Your task to perform on an android device: change the clock display to show seconds Image 0: 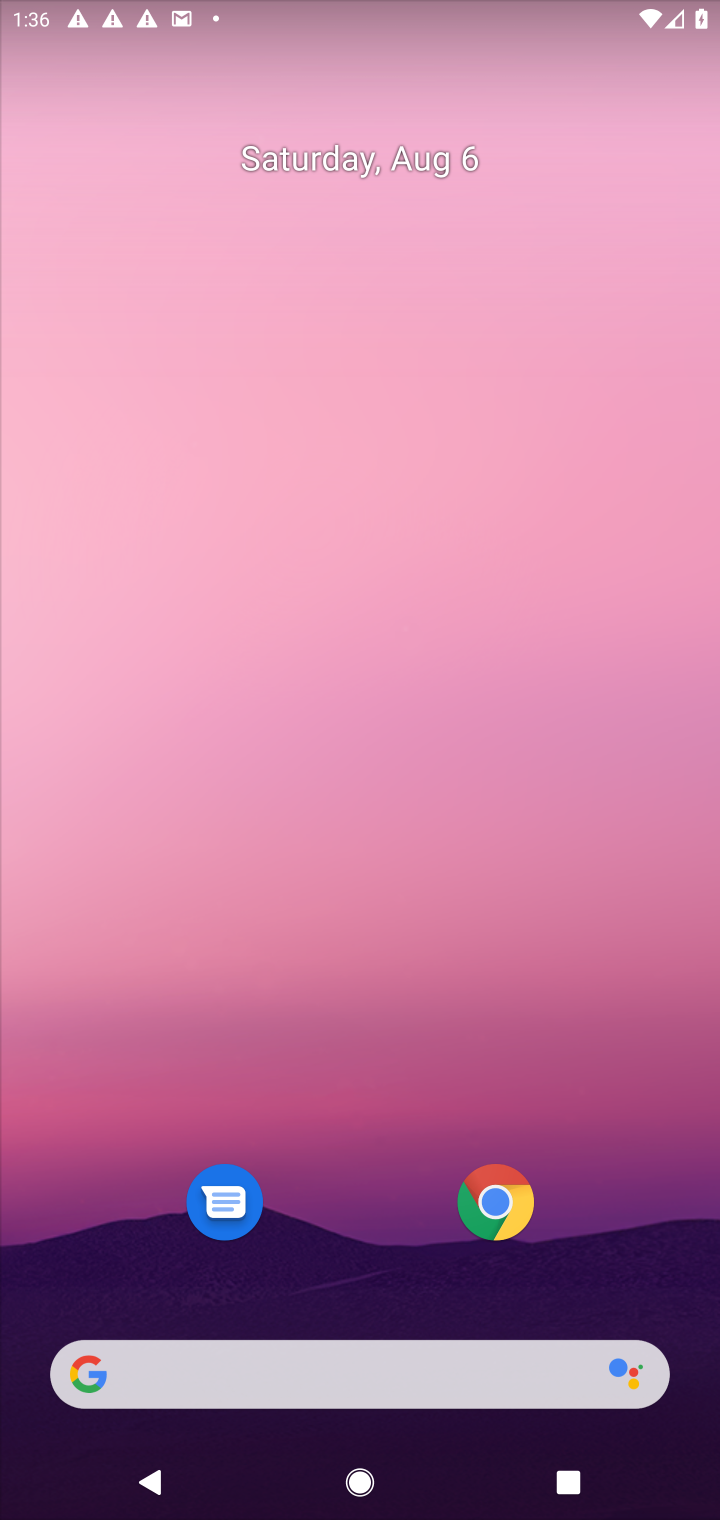
Step 0: drag from (334, 915) to (341, 4)
Your task to perform on an android device: change the clock display to show seconds Image 1: 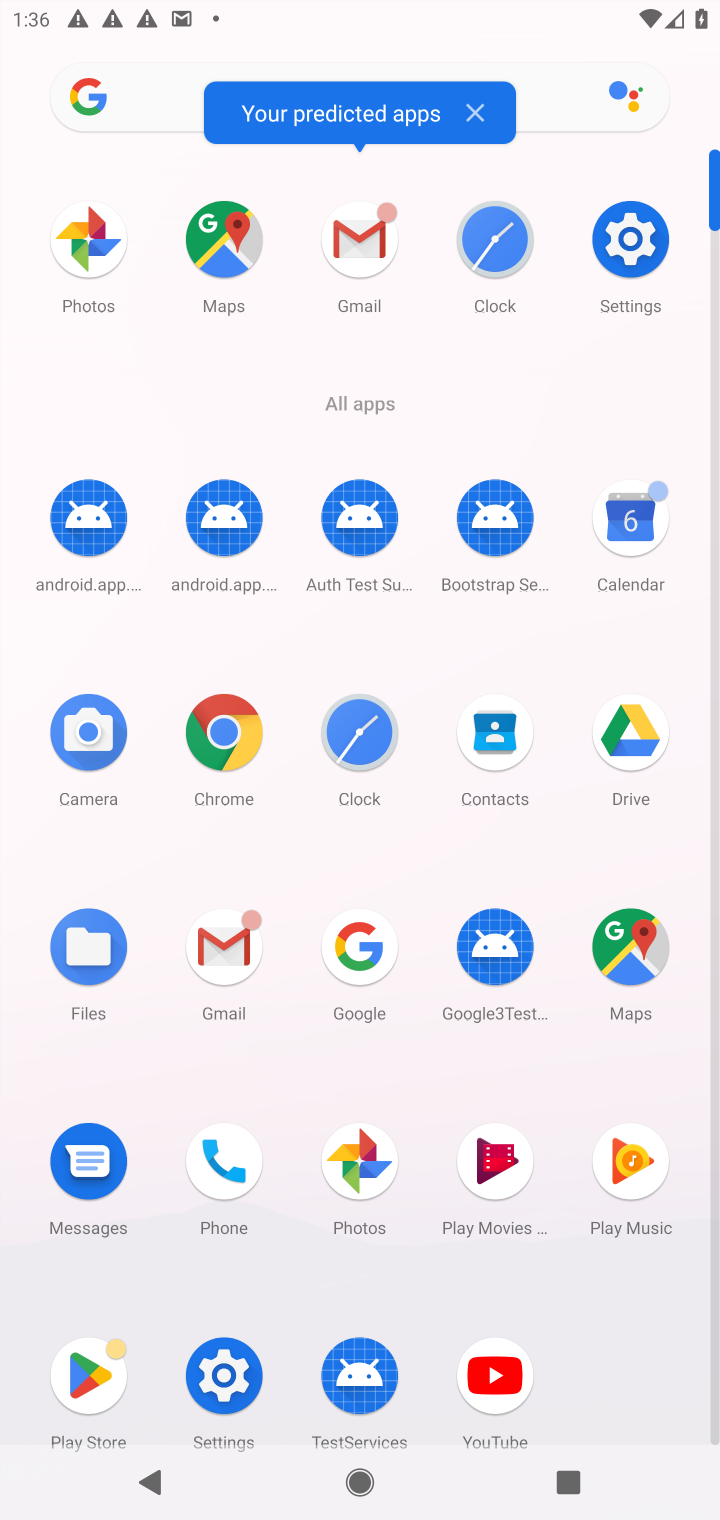
Step 1: click (349, 725)
Your task to perform on an android device: change the clock display to show seconds Image 2: 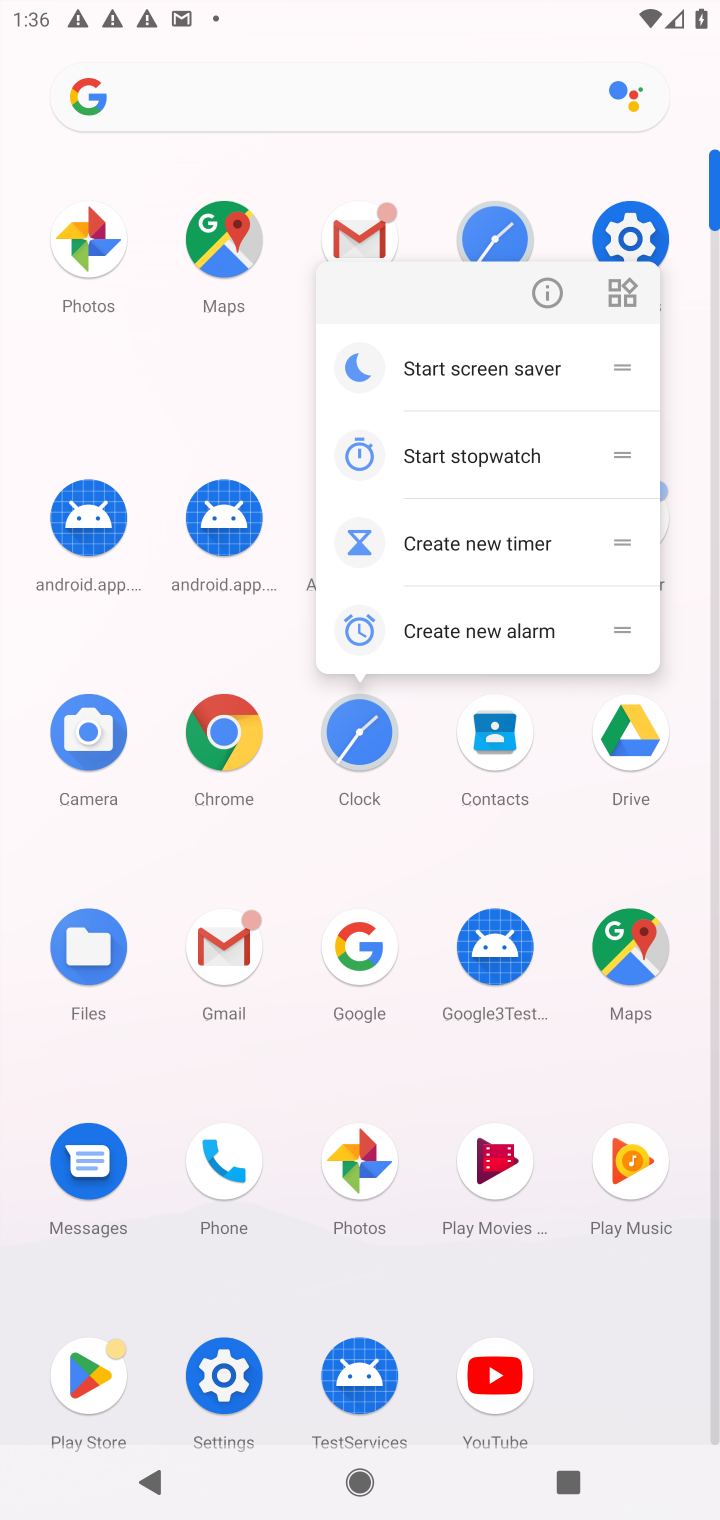
Step 2: click (349, 732)
Your task to perform on an android device: change the clock display to show seconds Image 3: 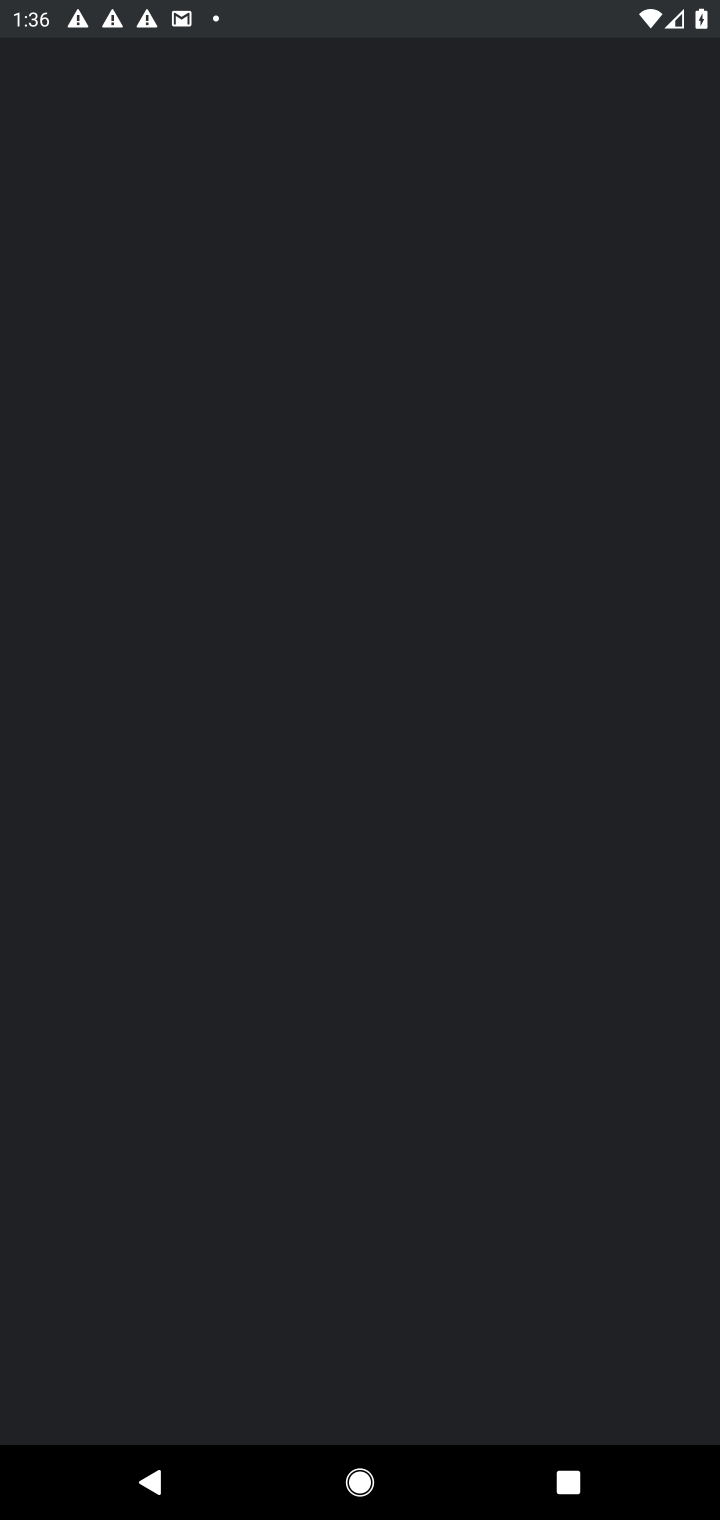
Step 3: click (442, 753)
Your task to perform on an android device: change the clock display to show seconds Image 4: 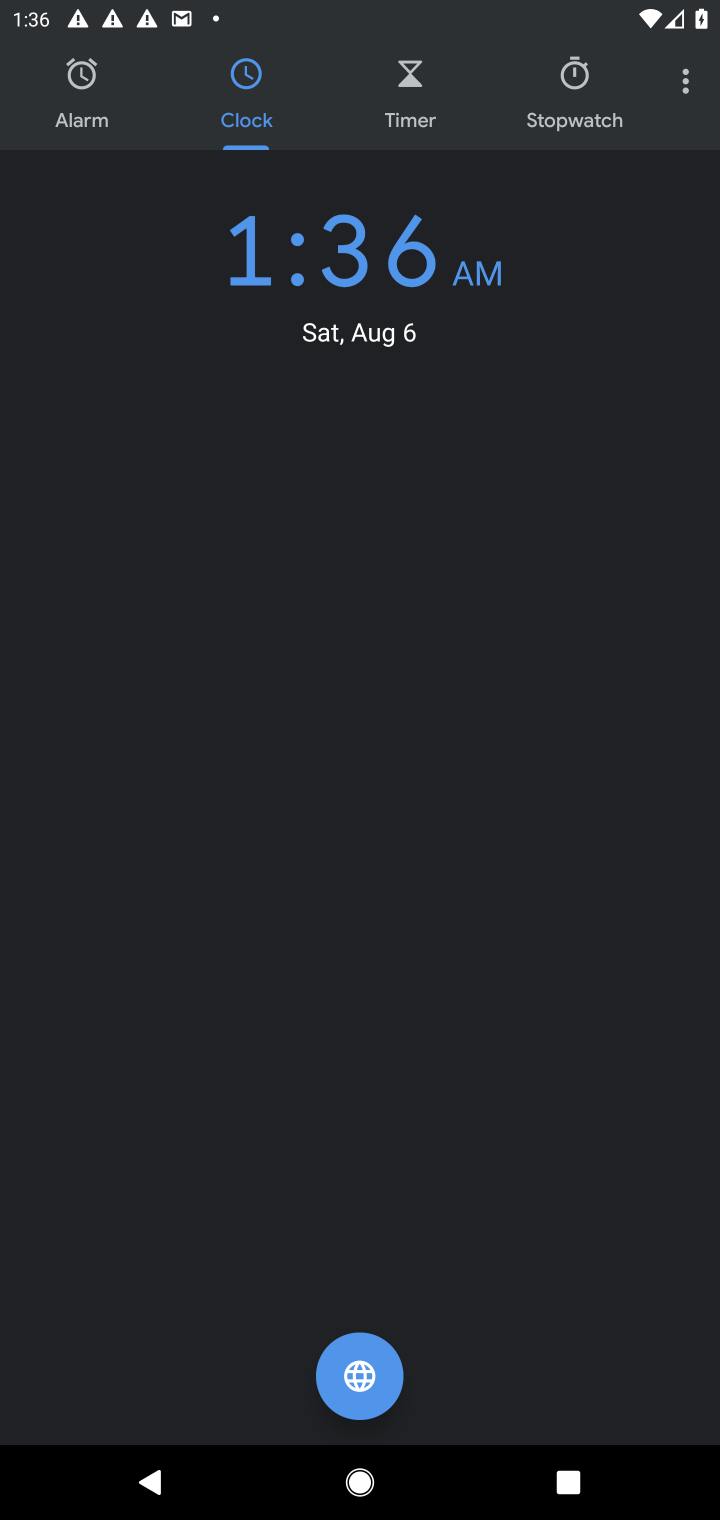
Step 4: click (681, 103)
Your task to perform on an android device: change the clock display to show seconds Image 5: 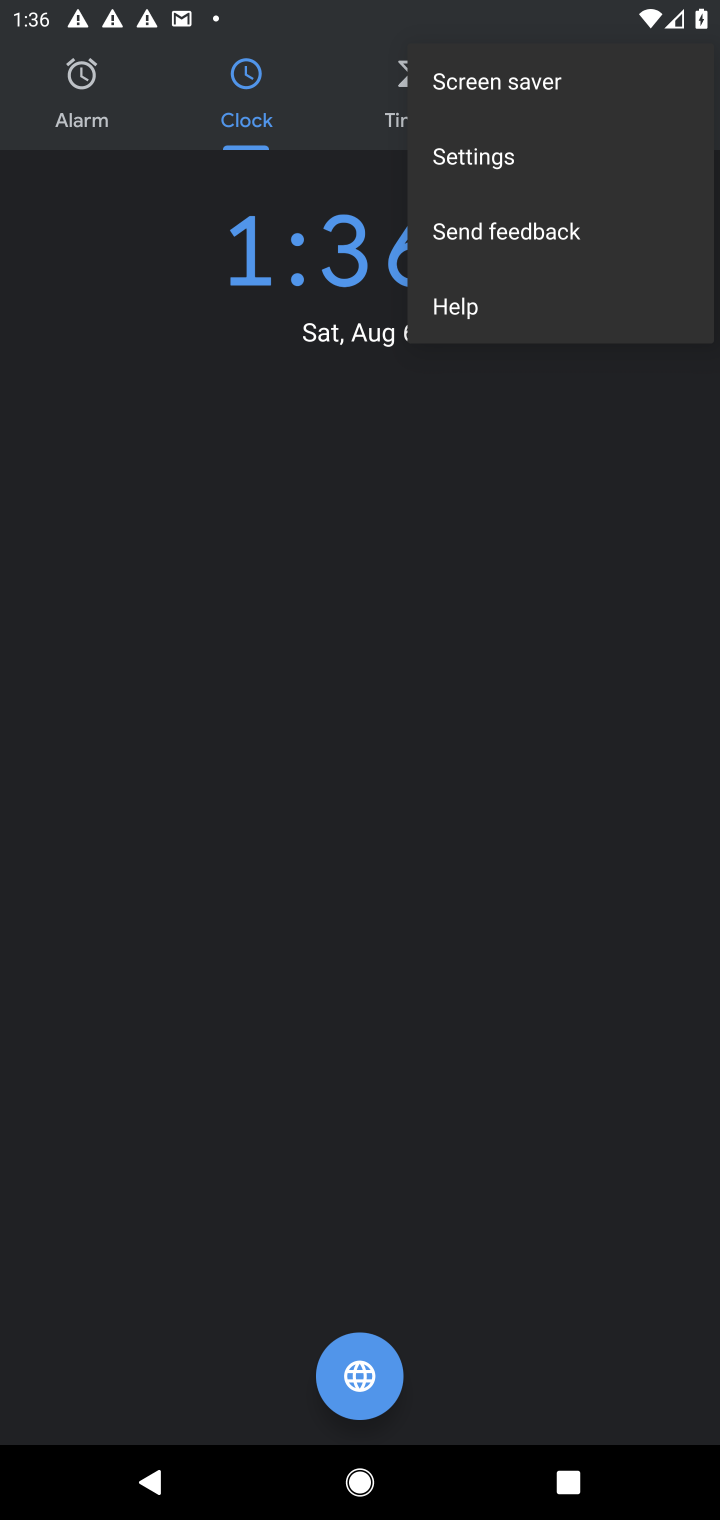
Step 5: click (492, 176)
Your task to perform on an android device: change the clock display to show seconds Image 6: 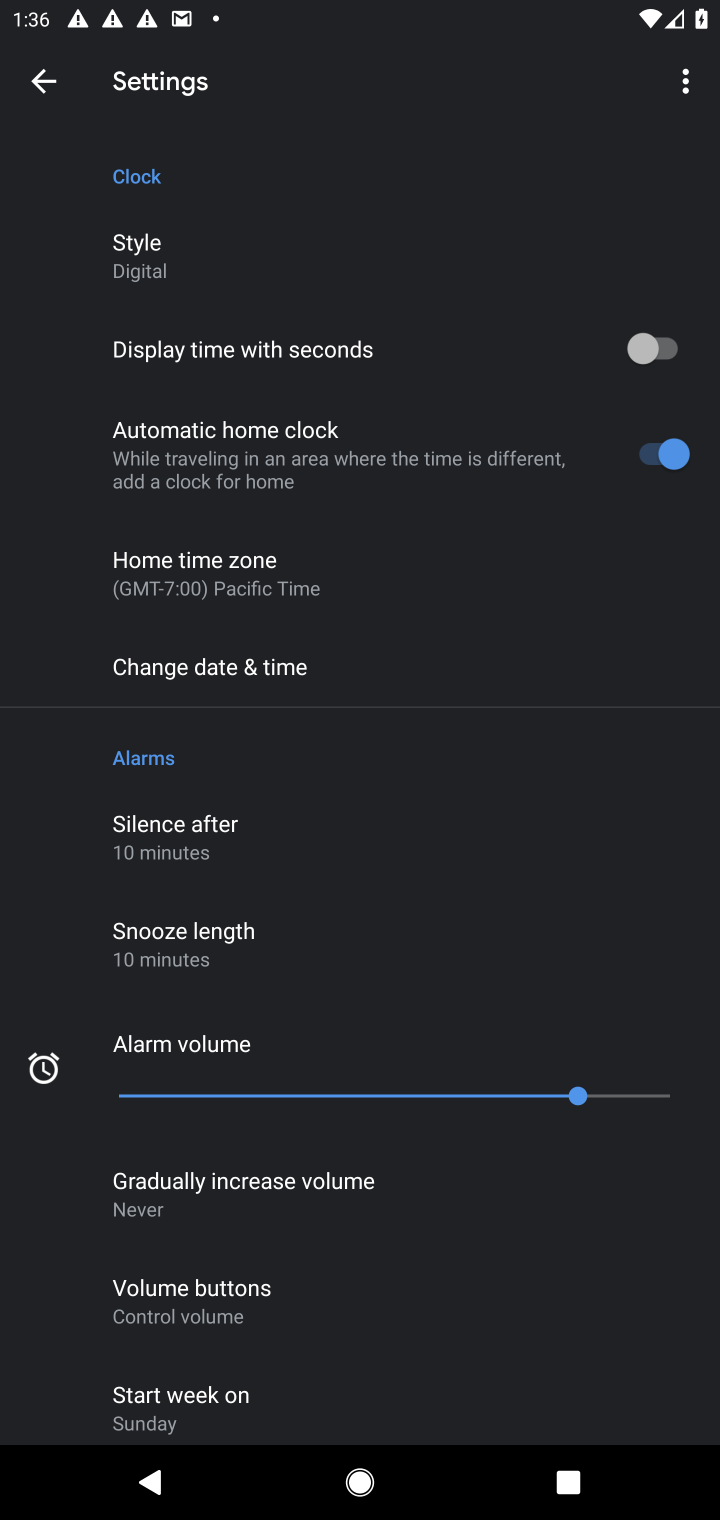
Step 6: click (663, 351)
Your task to perform on an android device: change the clock display to show seconds Image 7: 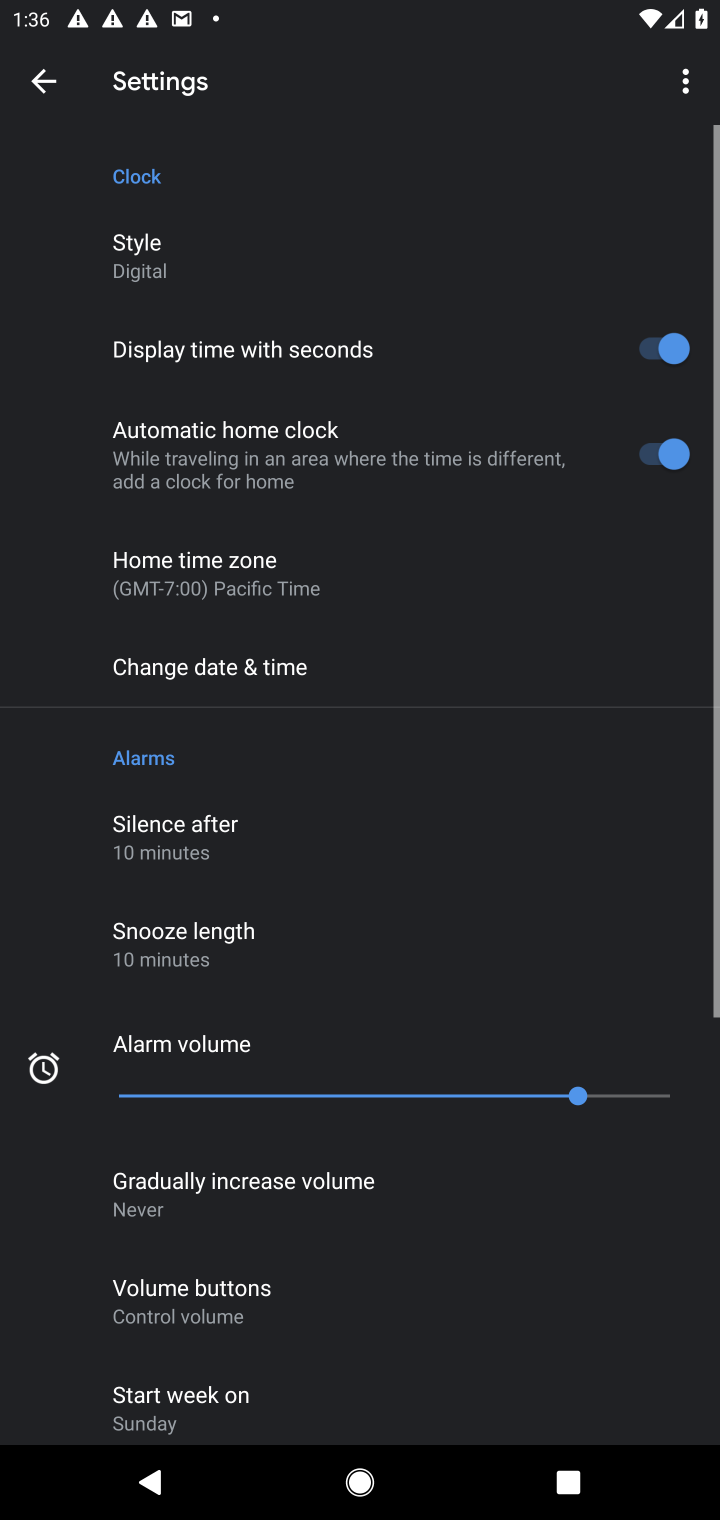
Step 7: task complete